Your task to perform on an android device: Go to CNN.com Image 0: 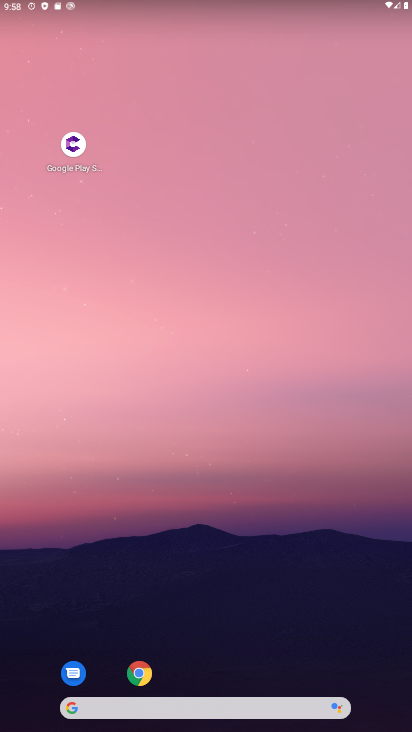
Step 0: click (141, 674)
Your task to perform on an android device: Go to CNN.com Image 1: 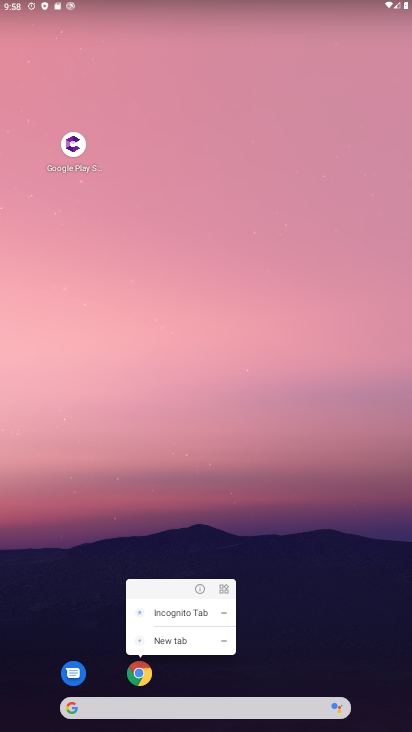
Step 1: click (143, 678)
Your task to perform on an android device: Go to CNN.com Image 2: 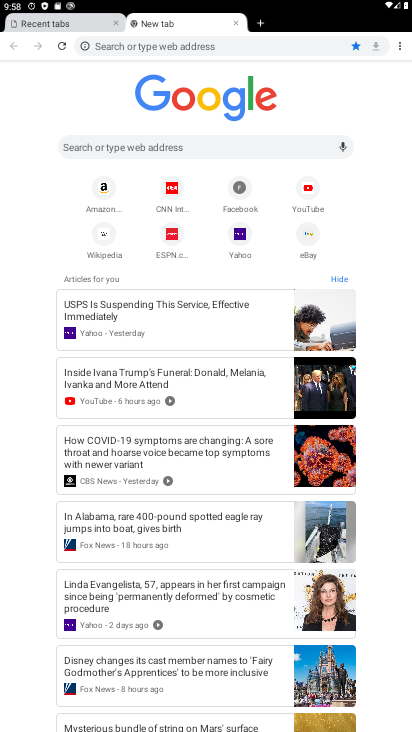
Step 2: click (173, 202)
Your task to perform on an android device: Go to CNN.com Image 3: 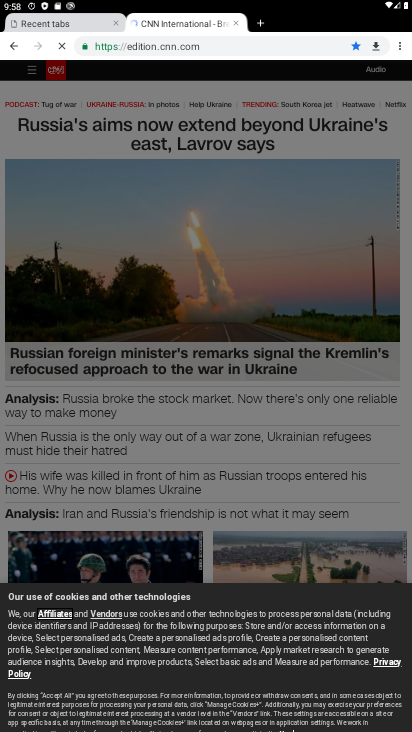
Step 3: task complete